Your task to perform on an android device: check out phone information Image 0: 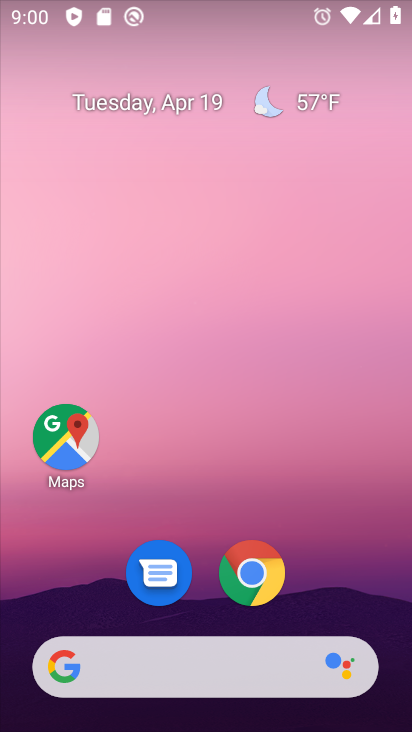
Step 0: drag from (337, 525) to (268, 106)
Your task to perform on an android device: check out phone information Image 1: 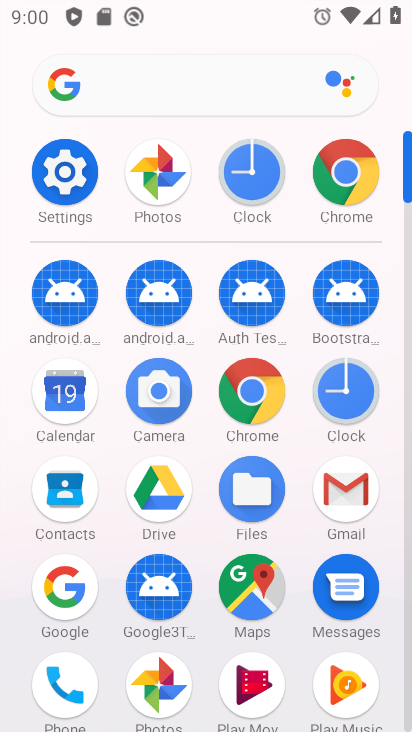
Step 1: click (73, 167)
Your task to perform on an android device: check out phone information Image 2: 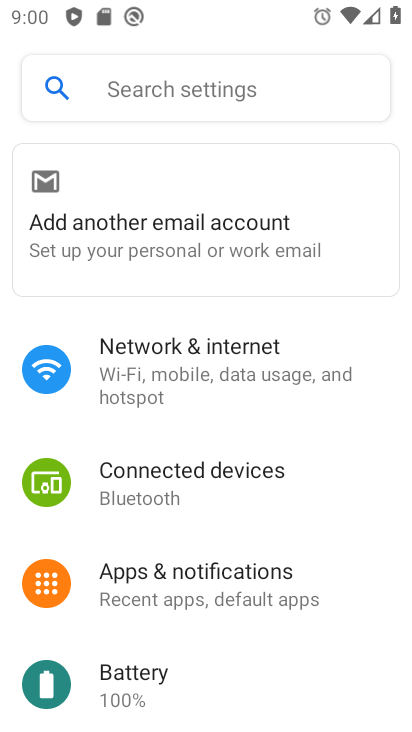
Step 2: drag from (292, 625) to (208, 131)
Your task to perform on an android device: check out phone information Image 3: 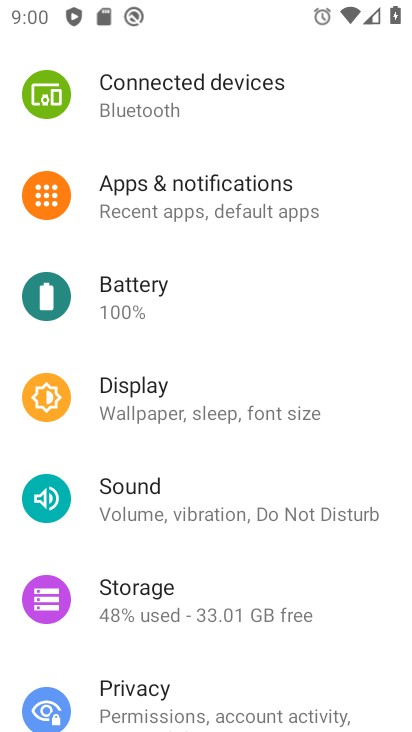
Step 3: drag from (238, 653) to (187, 82)
Your task to perform on an android device: check out phone information Image 4: 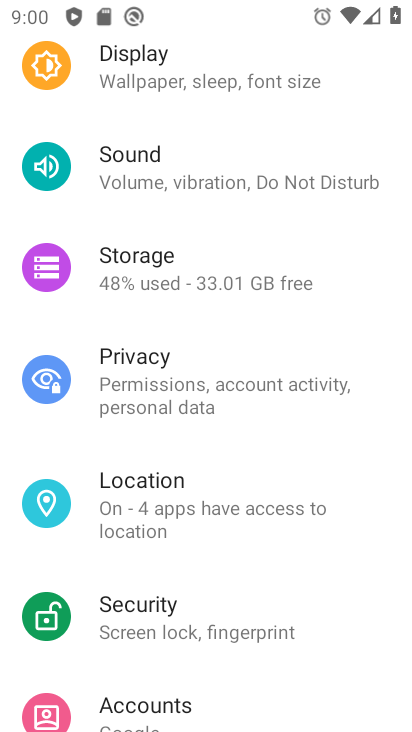
Step 4: drag from (209, 642) to (227, 157)
Your task to perform on an android device: check out phone information Image 5: 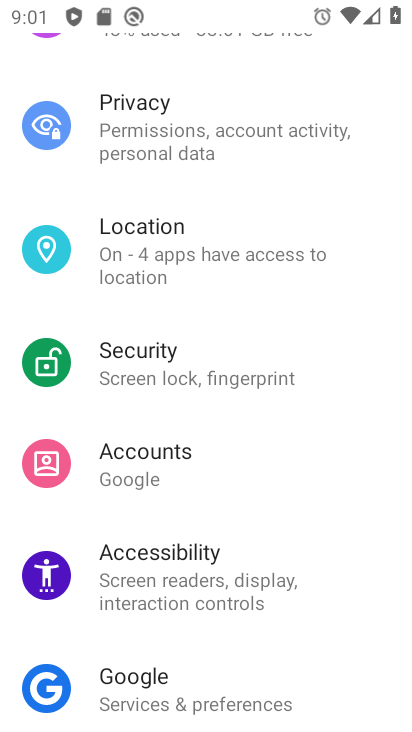
Step 5: drag from (200, 632) to (208, 173)
Your task to perform on an android device: check out phone information Image 6: 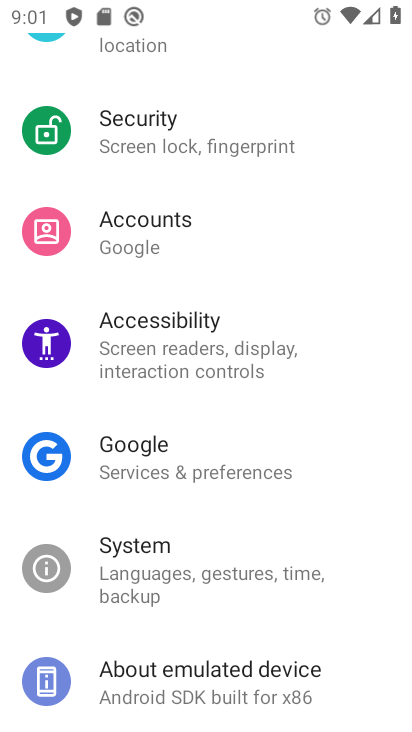
Step 6: drag from (176, 568) to (176, 221)
Your task to perform on an android device: check out phone information Image 7: 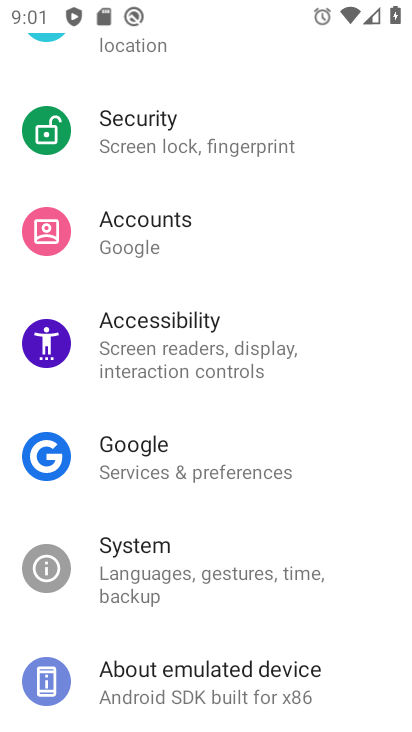
Step 7: click (117, 684)
Your task to perform on an android device: check out phone information Image 8: 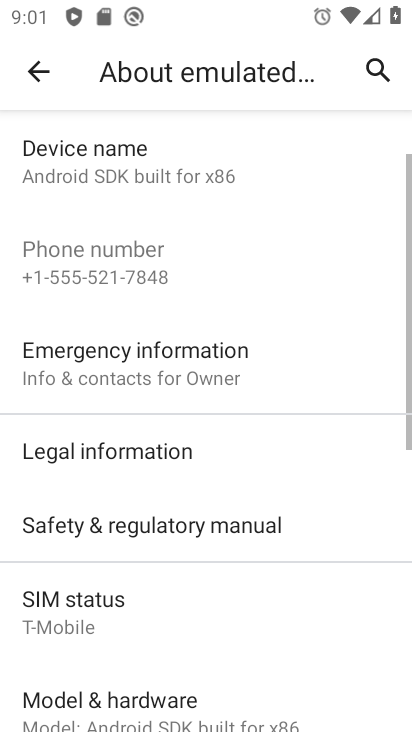
Step 8: drag from (225, 602) to (232, 310)
Your task to perform on an android device: check out phone information Image 9: 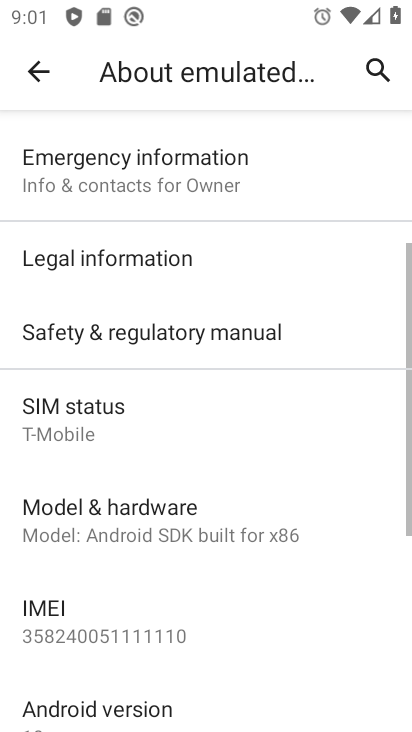
Step 9: click (210, 521)
Your task to perform on an android device: check out phone information Image 10: 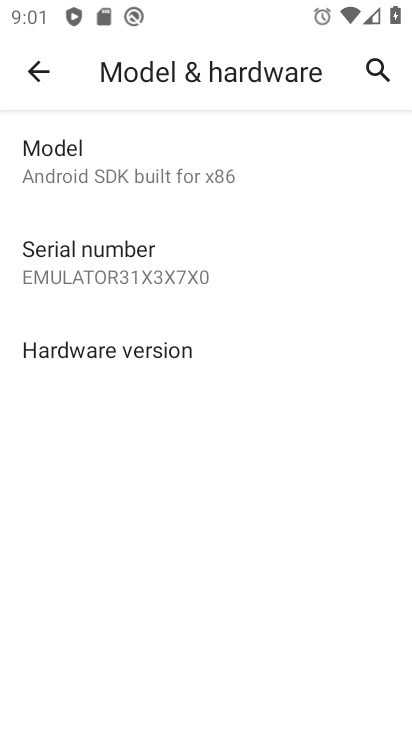
Step 10: click (157, 186)
Your task to perform on an android device: check out phone information Image 11: 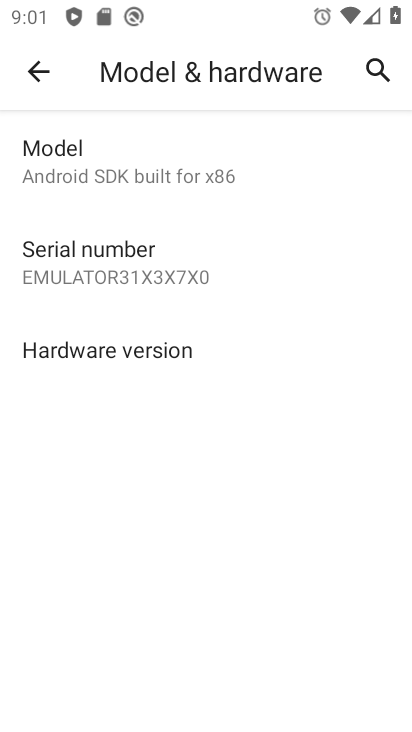
Step 11: task complete